Your task to perform on an android device: turn off wifi Image 0: 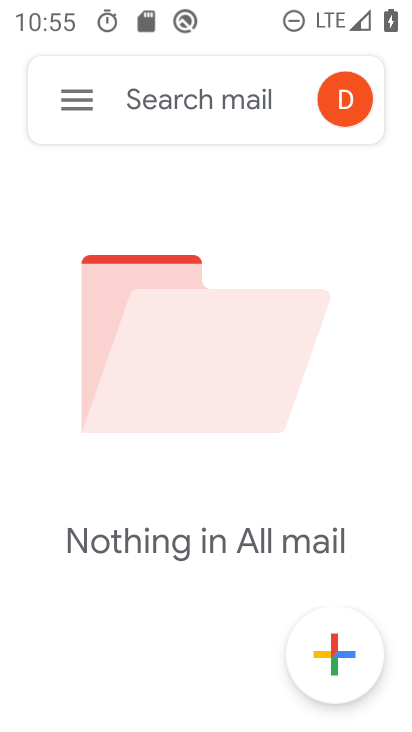
Step 0: press home button
Your task to perform on an android device: turn off wifi Image 1: 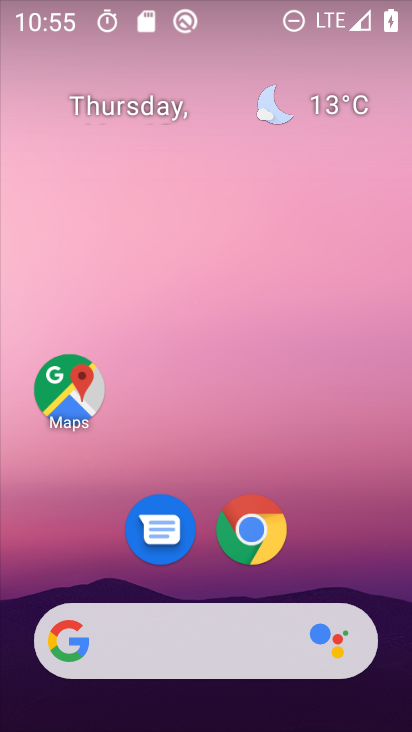
Step 1: drag from (348, 544) to (370, 40)
Your task to perform on an android device: turn off wifi Image 2: 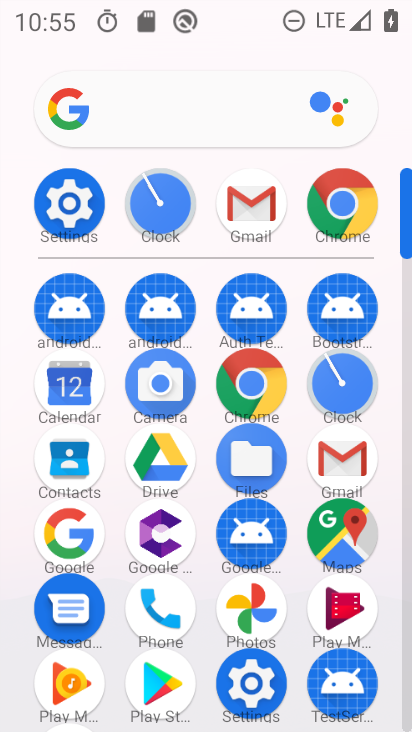
Step 2: click (68, 215)
Your task to perform on an android device: turn off wifi Image 3: 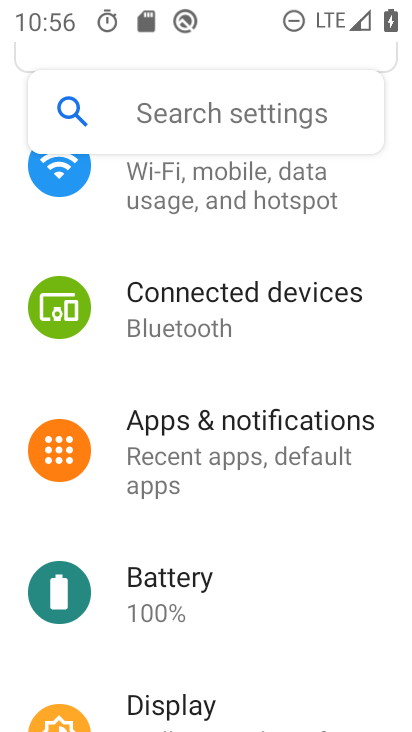
Step 3: click (188, 189)
Your task to perform on an android device: turn off wifi Image 4: 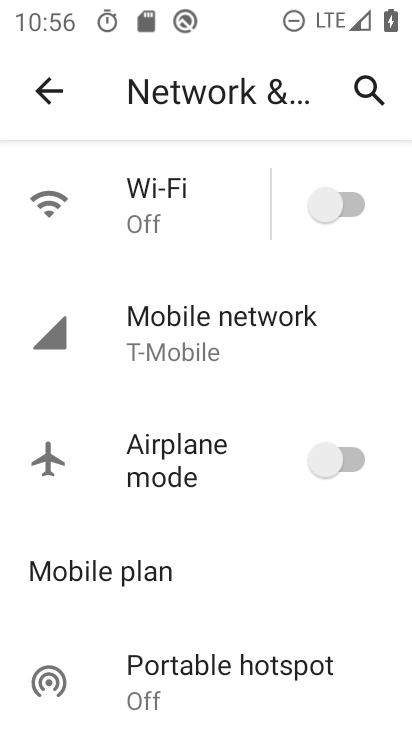
Step 4: task complete